Your task to perform on an android device: check google app version Image 0: 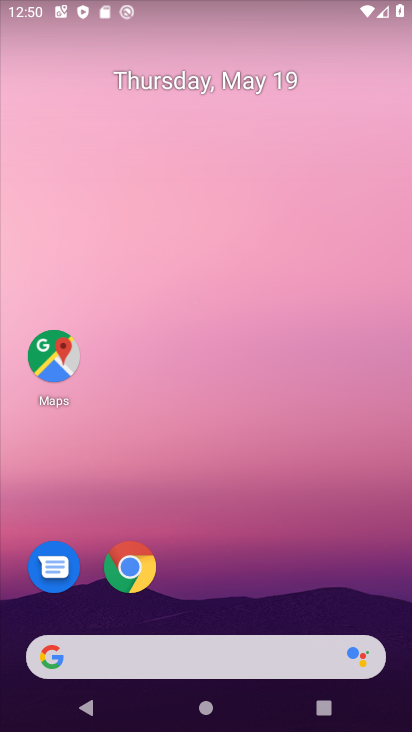
Step 0: drag from (46, 524) to (246, 128)
Your task to perform on an android device: check google app version Image 1: 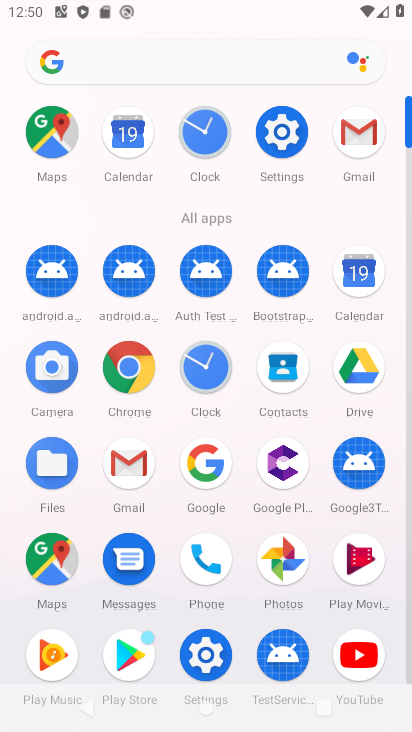
Step 1: click (350, 462)
Your task to perform on an android device: check google app version Image 2: 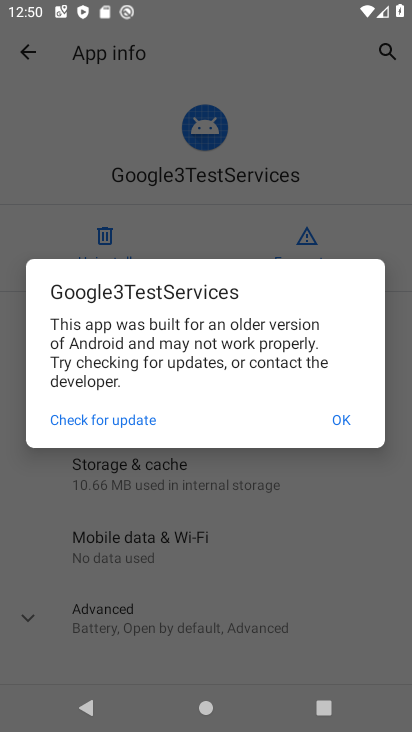
Step 2: click (346, 418)
Your task to perform on an android device: check google app version Image 3: 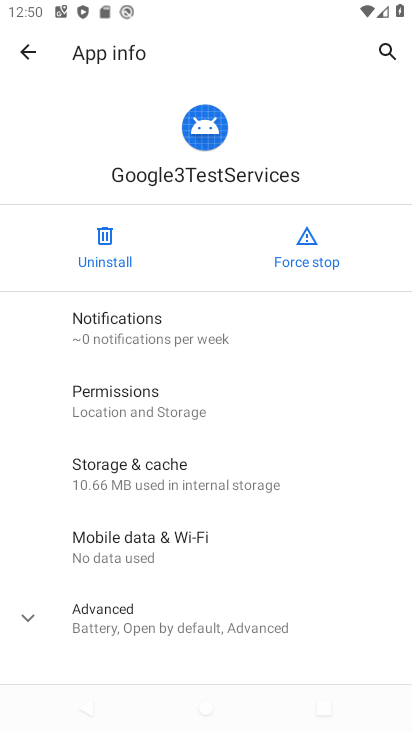
Step 3: drag from (29, 554) to (175, 276)
Your task to perform on an android device: check google app version Image 4: 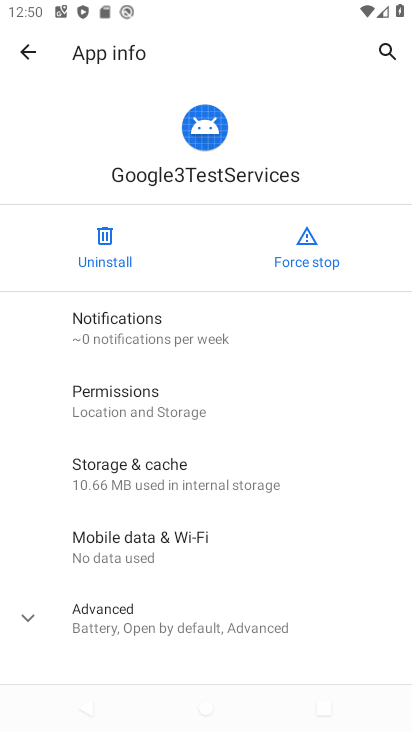
Step 4: click (156, 627)
Your task to perform on an android device: check google app version Image 5: 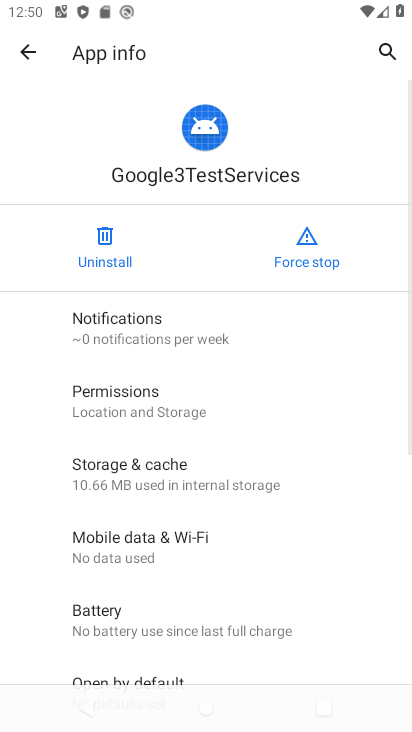
Step 5: task complete